Your task to perform on an android device: set an alarm Image 0: 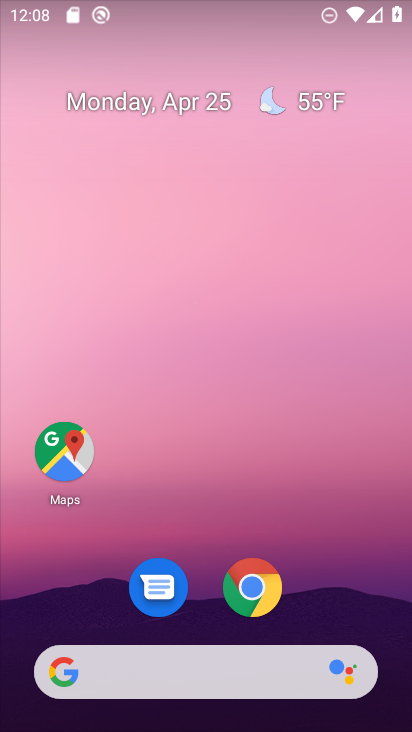
Step 0: drag from (327, 557) to (327, 26)
Your task to perform on an android device: set an alarm Image 1: 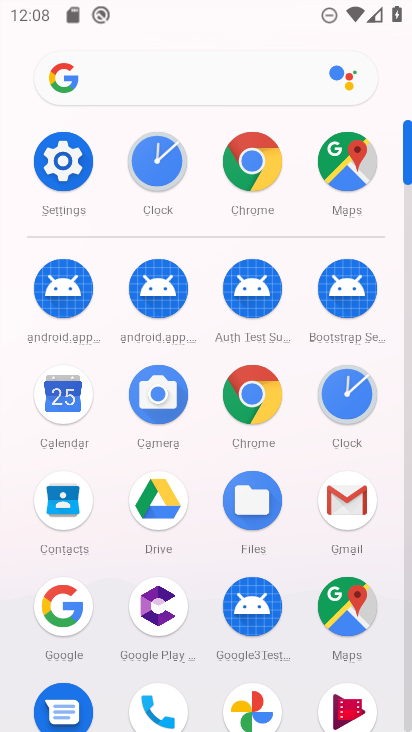
Step 1: click (348, 401)
Your task to perform on an android device: set an alarm Image 2: 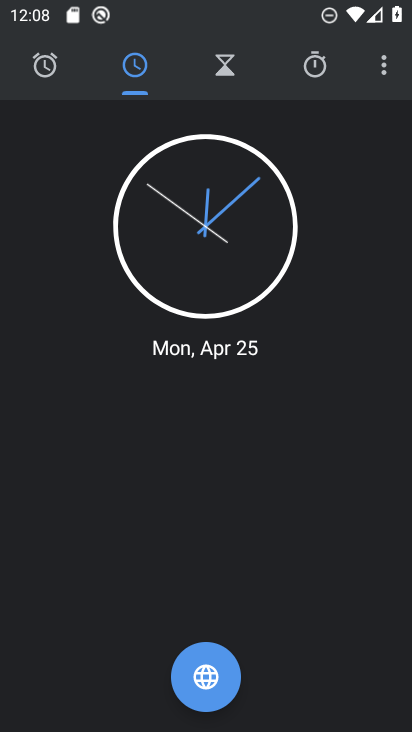
Step 2: click (40, 64)
Your task to perform on an android device: set an alarm Image 3: 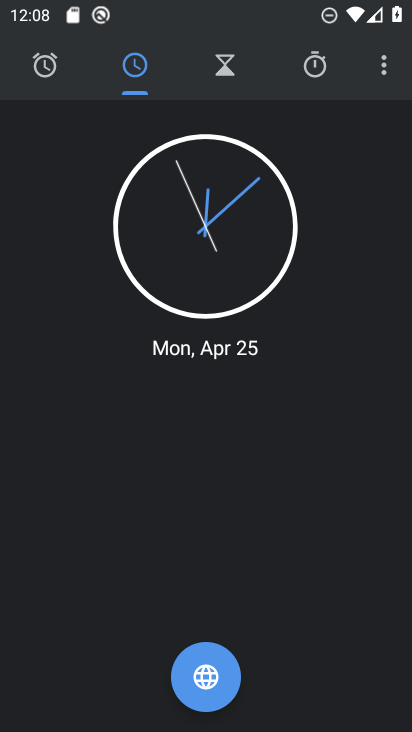
Step 3: click (52, 72)
Your task to perform on an android device: set an alarm Image 4: 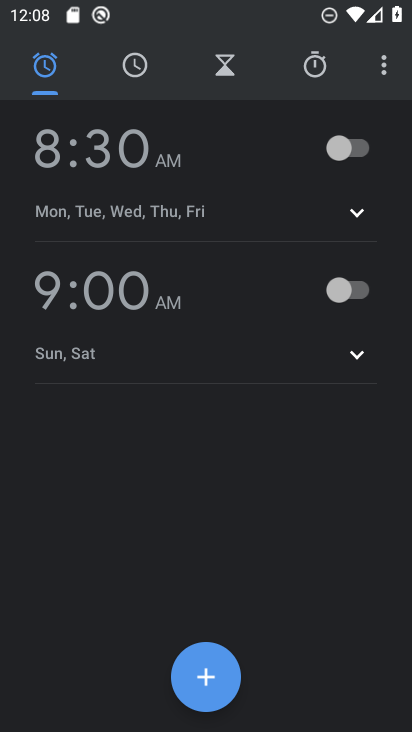
Step 4: click (222, 664)
Your task to perform on an android device: set an alarm Image 5: 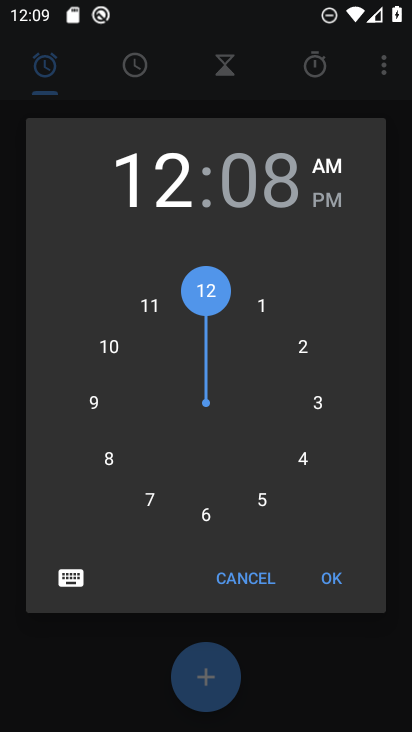
Step 5: click (324, 578)
Your task to perform on an android device: set an alarm Image 6: 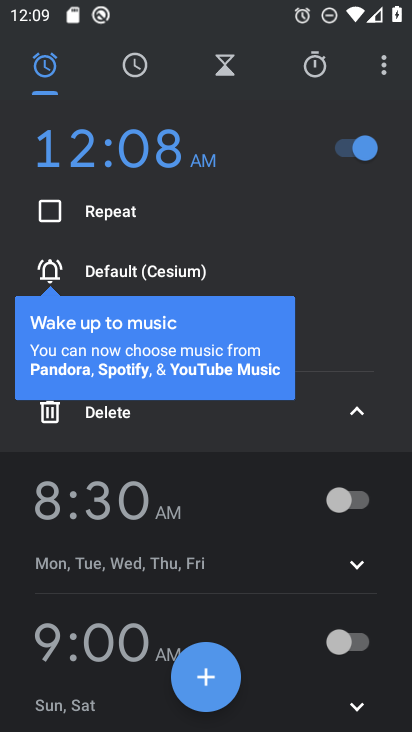
Step 6: task complete